Your task to perform on an android device: What's on my calendar today? Image 0: 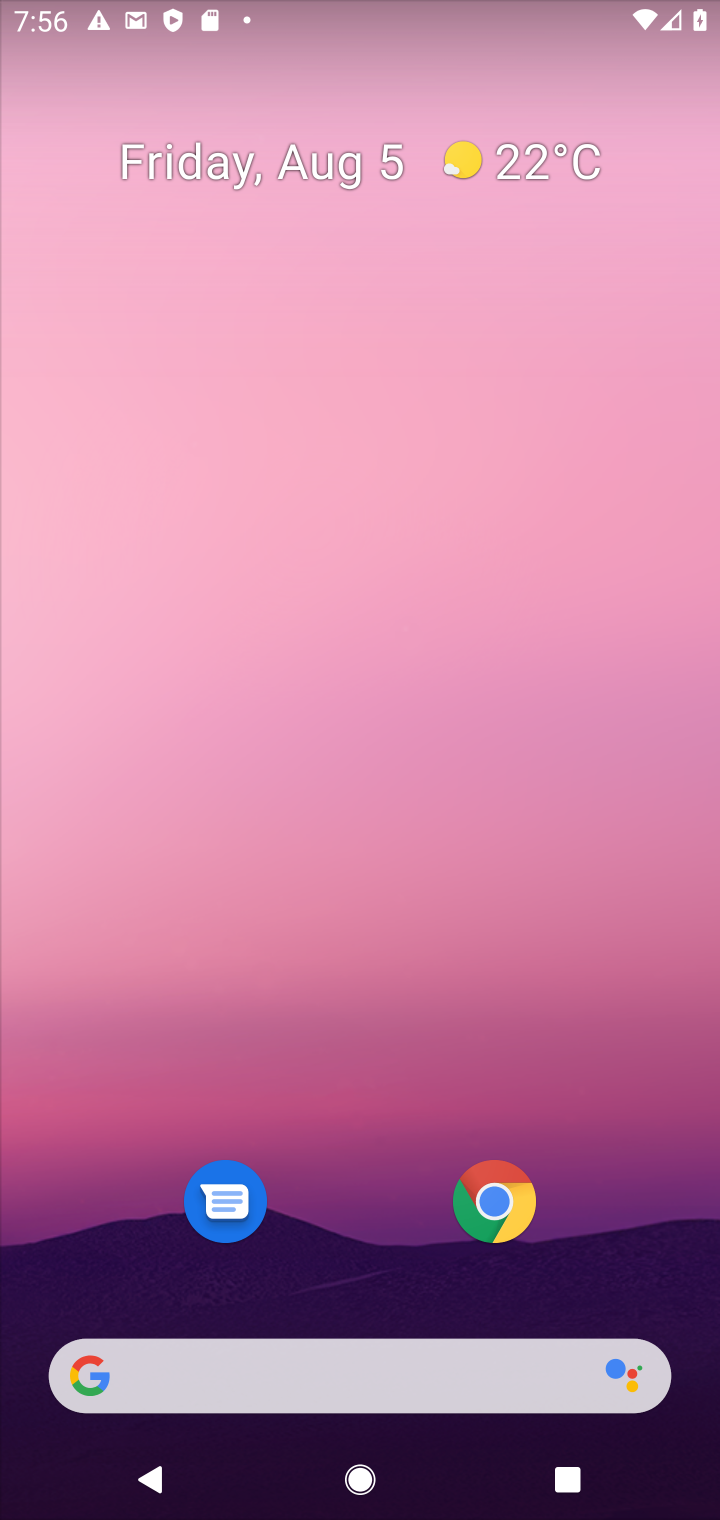
Step 0: drag from (398, 841) to (429, 224)
Your task to perform on an android device: What's on my calendar today? Image 1: 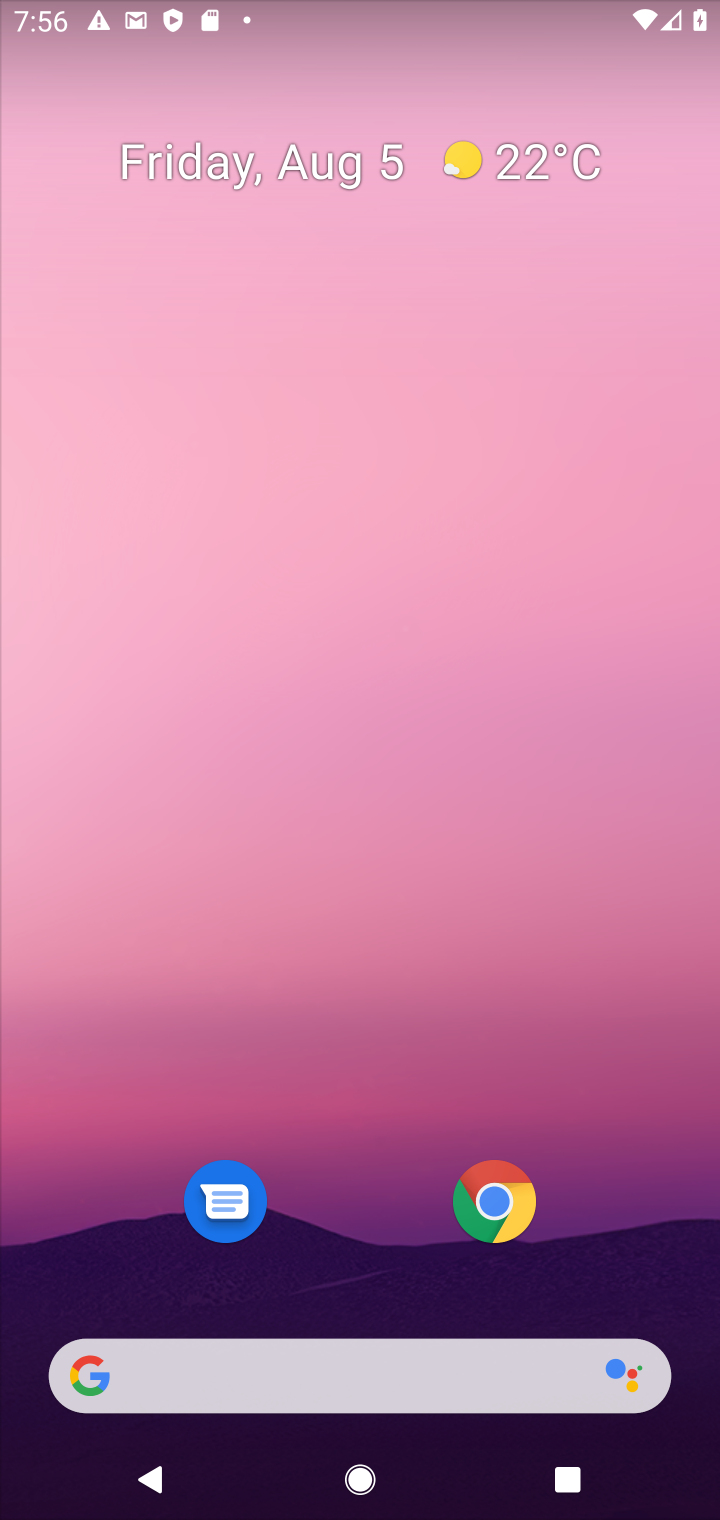
Step 1: drag from (418, 1467) to (395, 424)
Your task to perform on an android device: What's on my calendar today? Image 2: 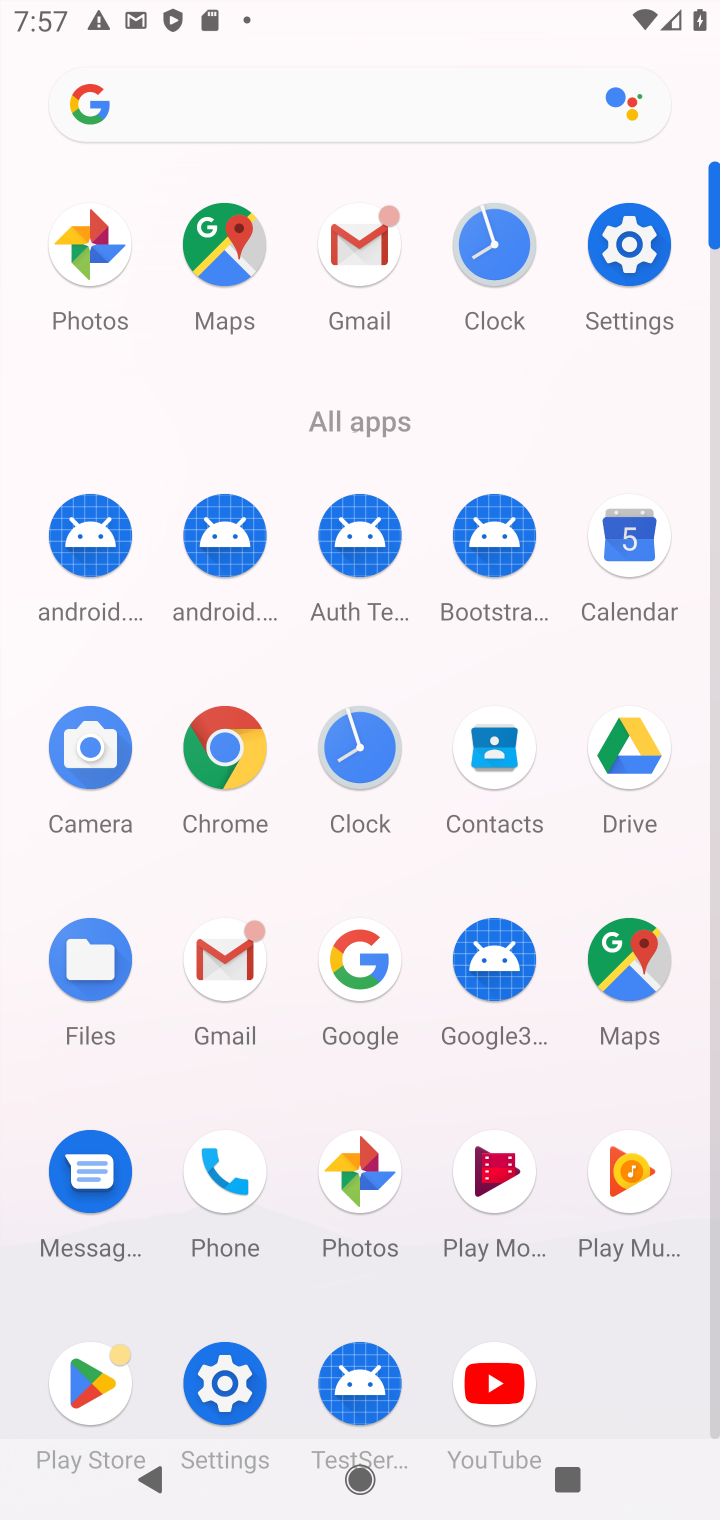
Step 2: click (645, 556)
Your task to perform on an android device: What's on my calendar today? Image 3: 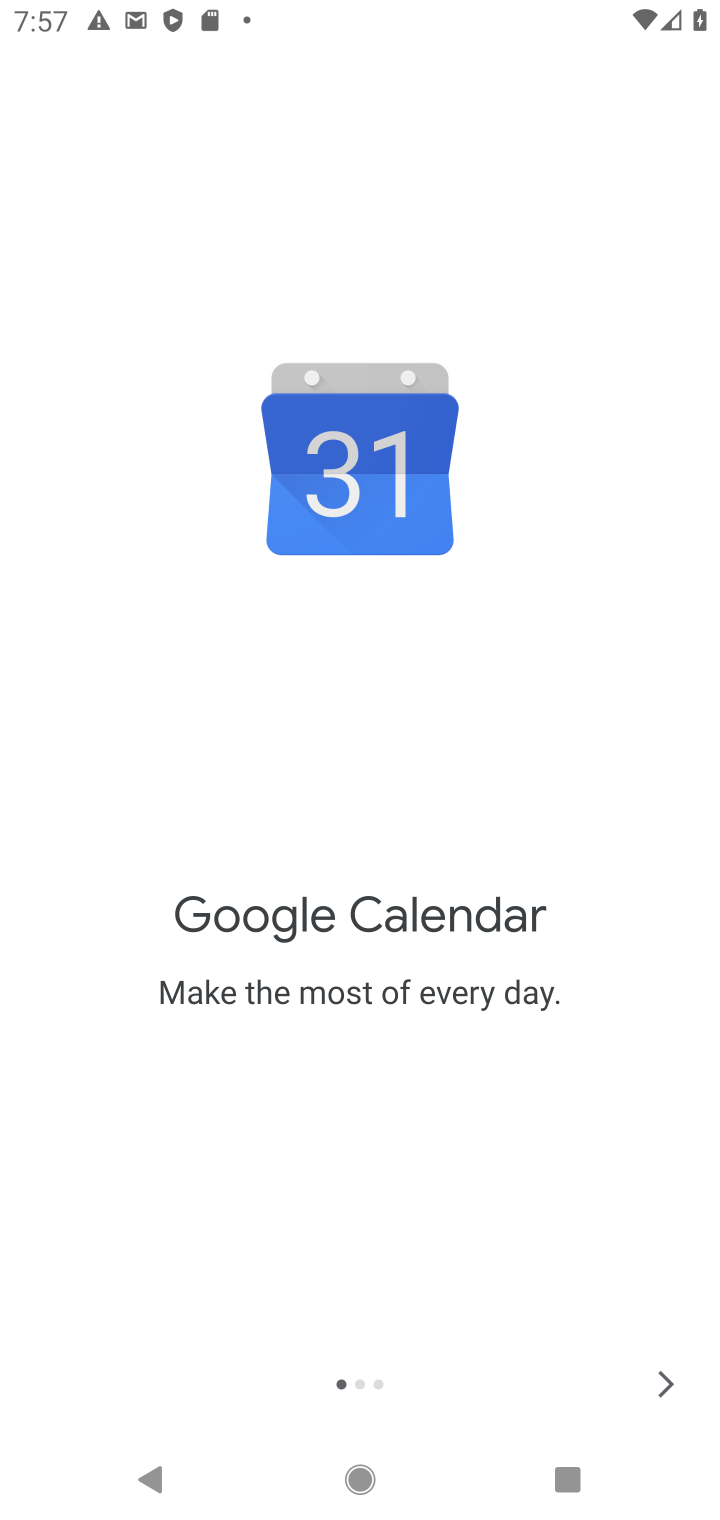
Step 3: click (663, 1387)
Your task to perform on an android device: What's on my calendar today? Image 4: 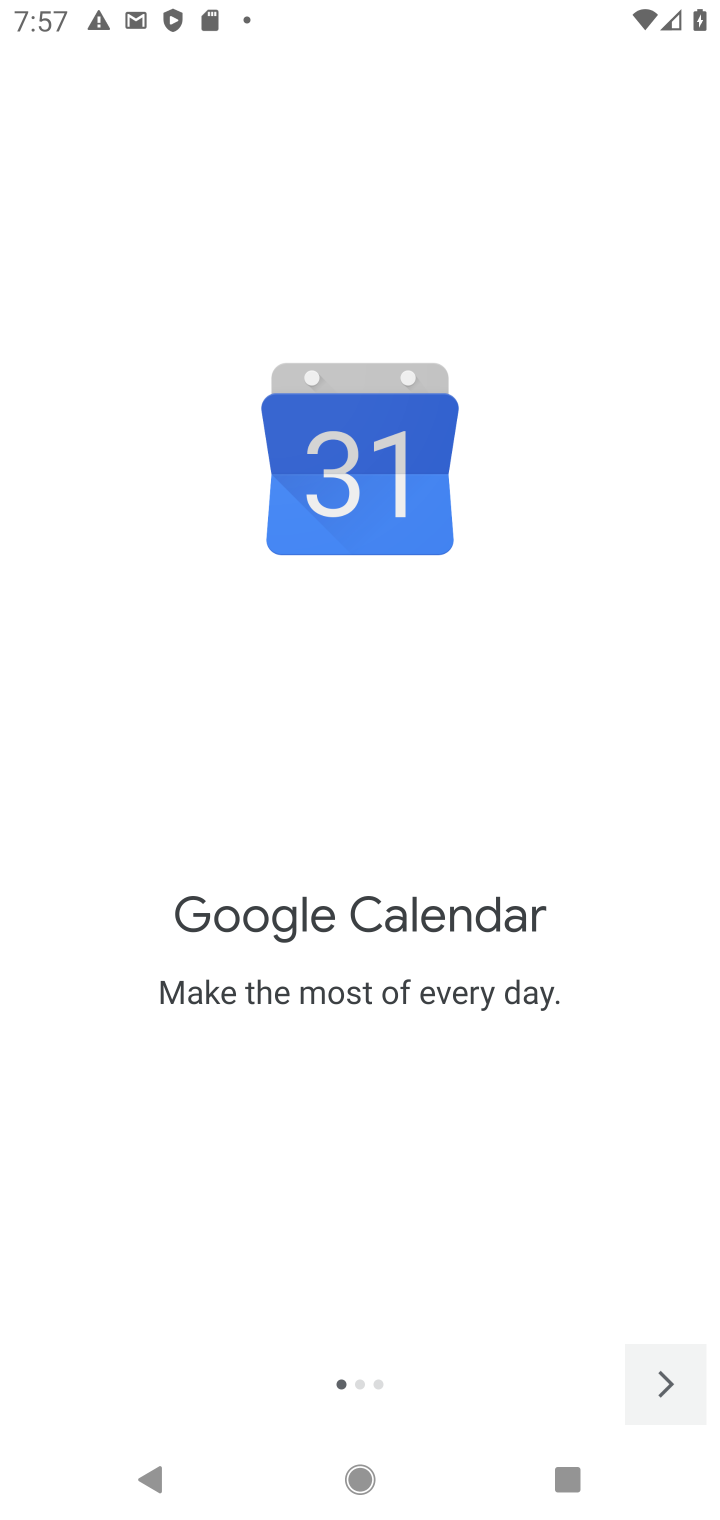
Step 4: click (663, 1387)
Your task to perform on an android device: What's on my calendar today? Image 5: 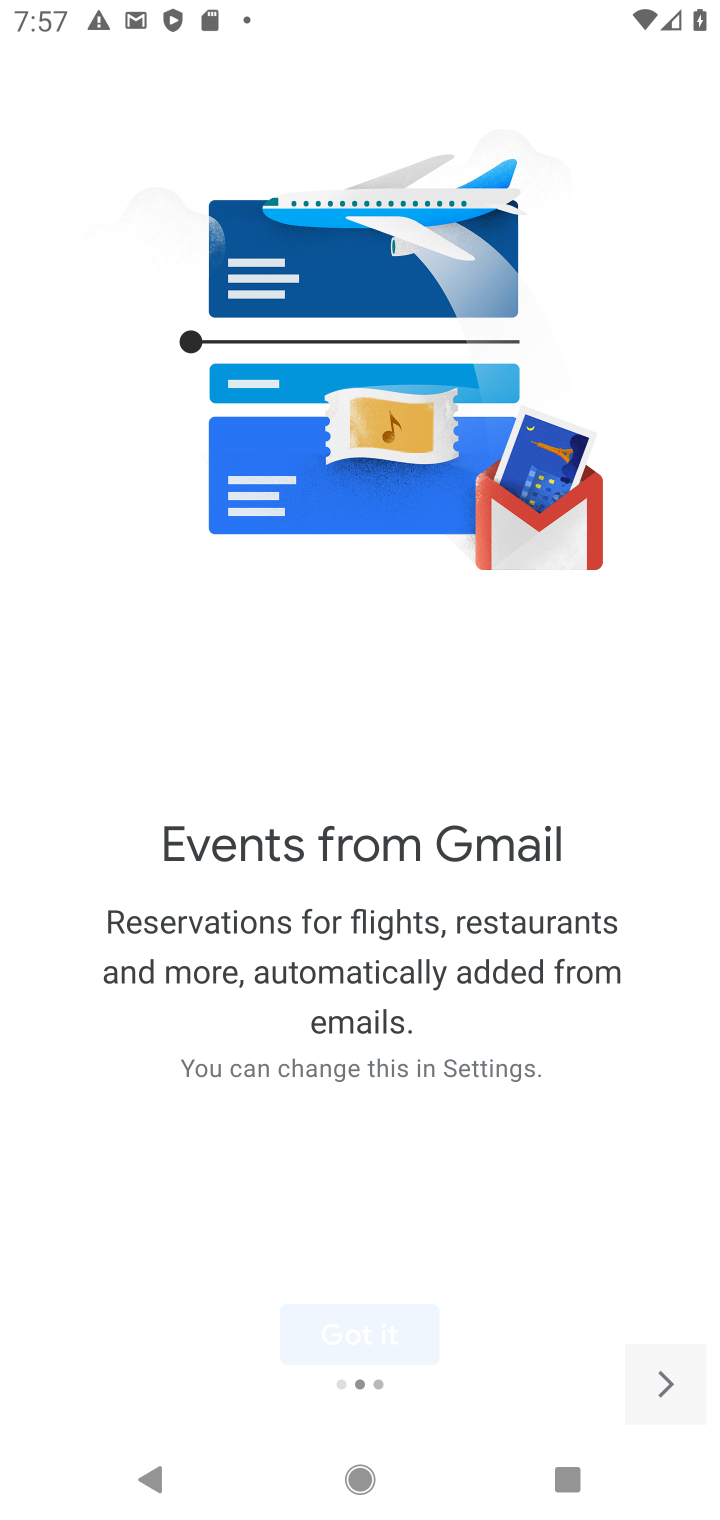
Step 5: click (663, 1387)
Your task to perform on an android device: What's on my calendar today? Image 6: 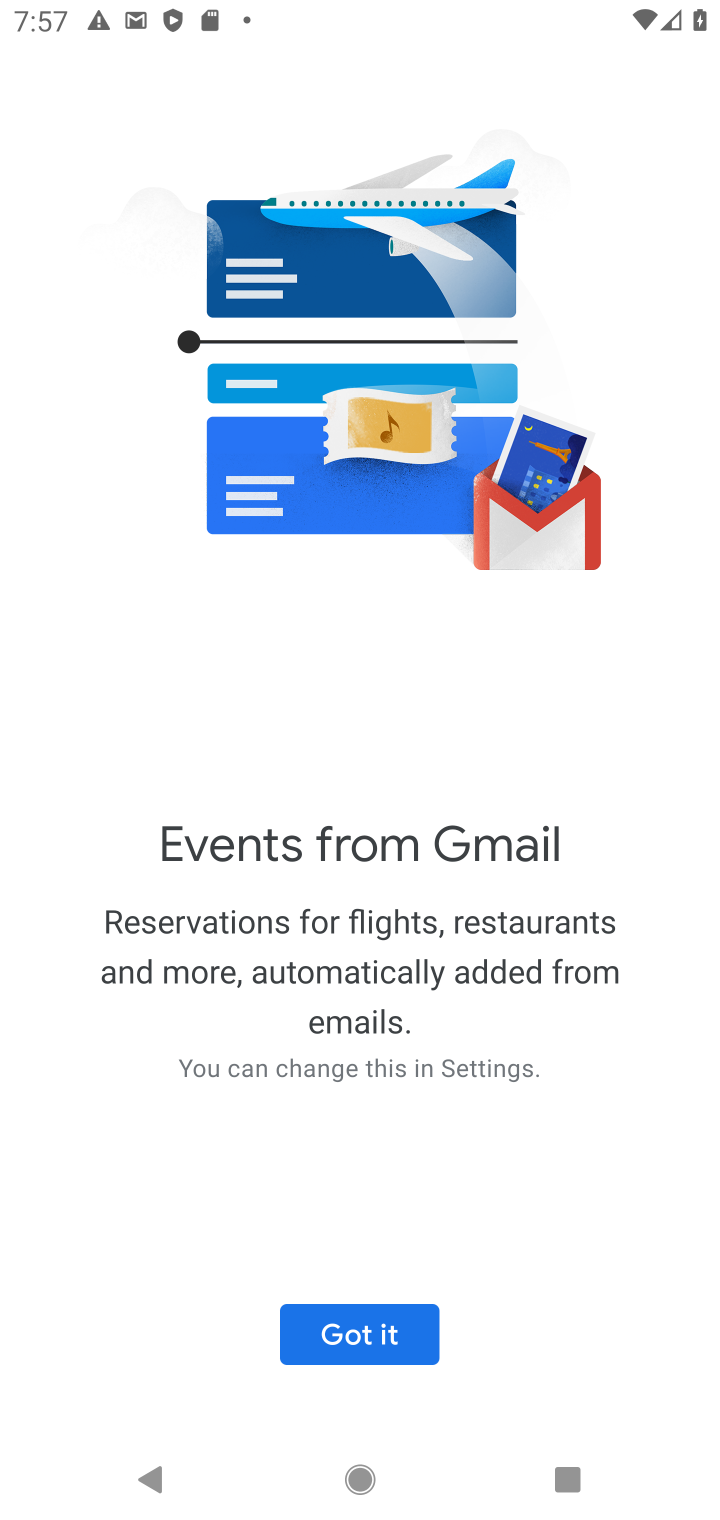
Step 6: click (281, 1328)
Your task to perform on an android device: What's on my calendar today? Image 7: 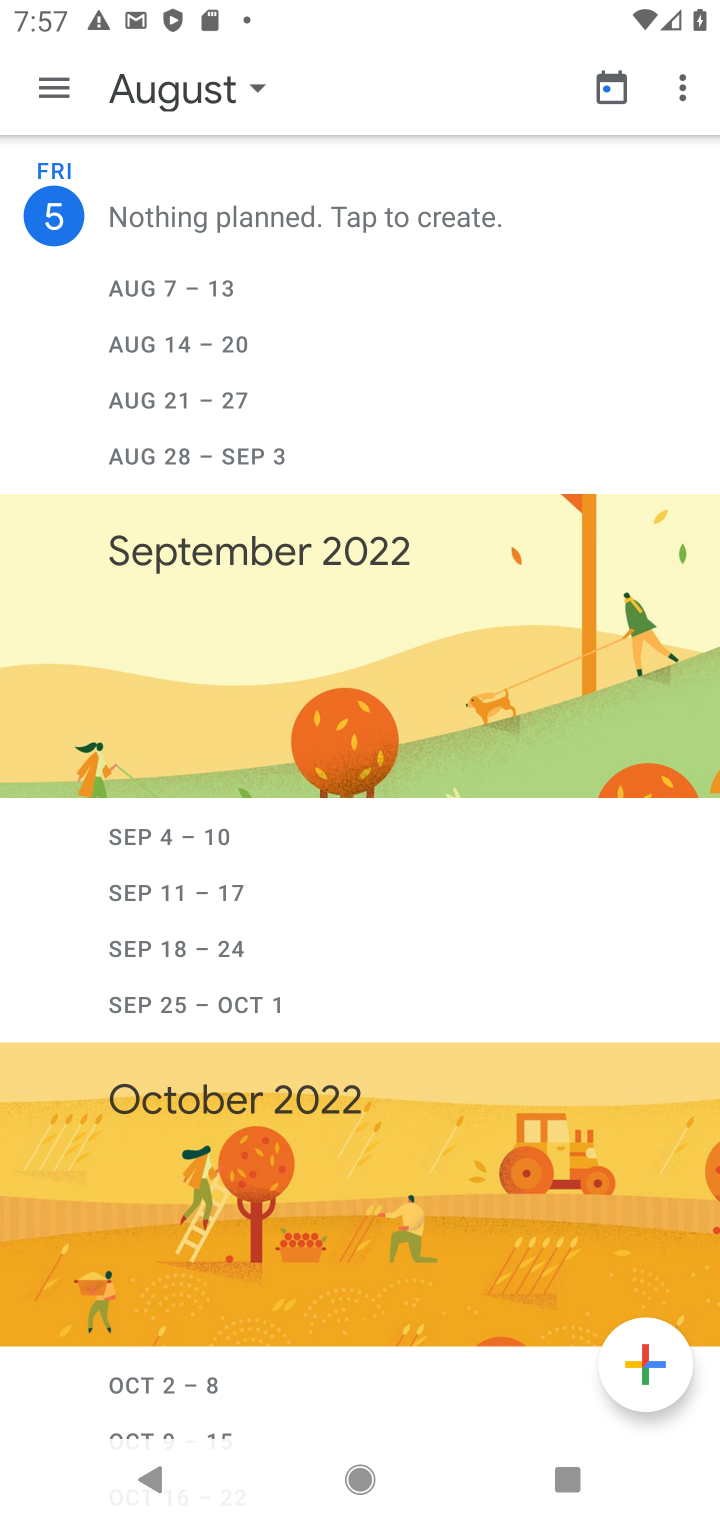
Step 7: click (251, 84)
Your task to perform on an android device: What's on my calendar today? Image 8: 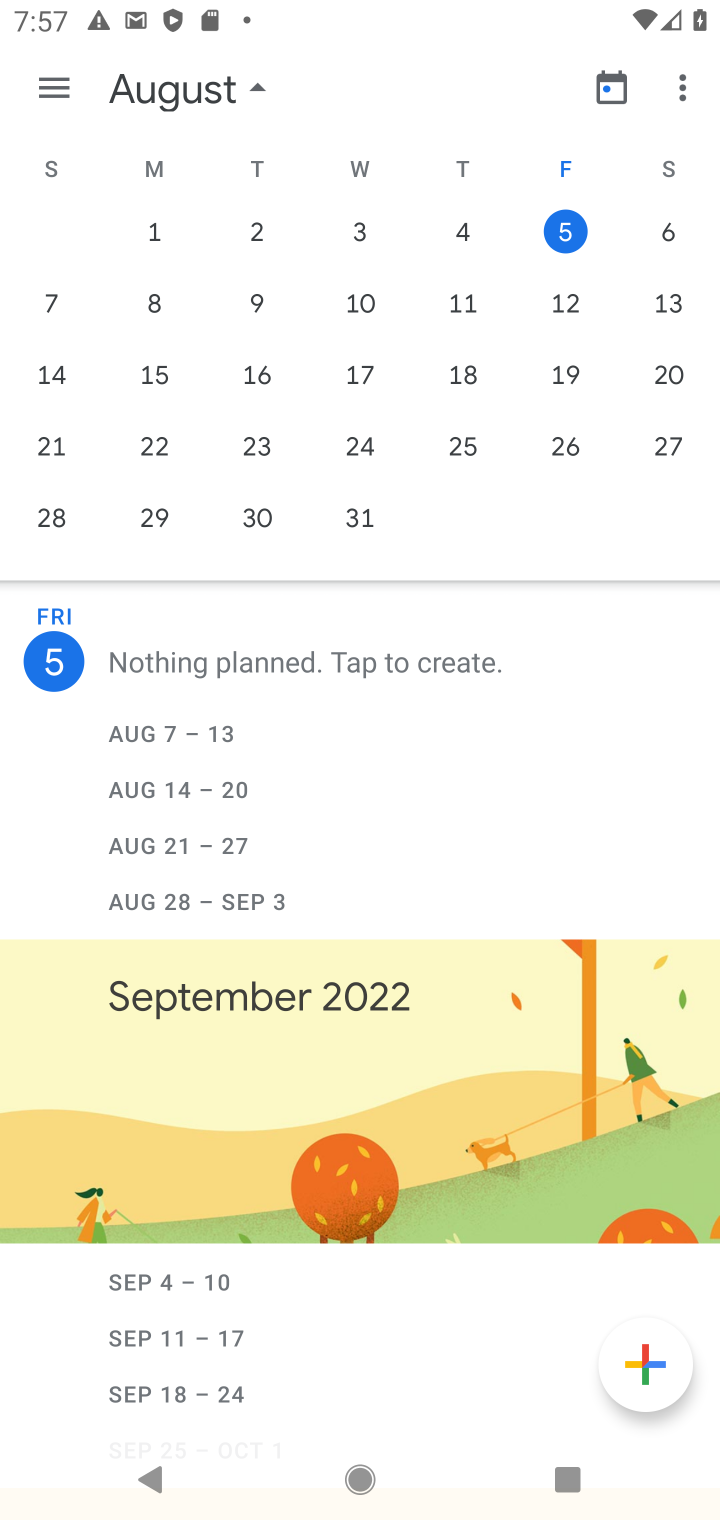
Step 8: click (671, 232)
Your task to perform on an android device: What's on my calendar today? Image 9: 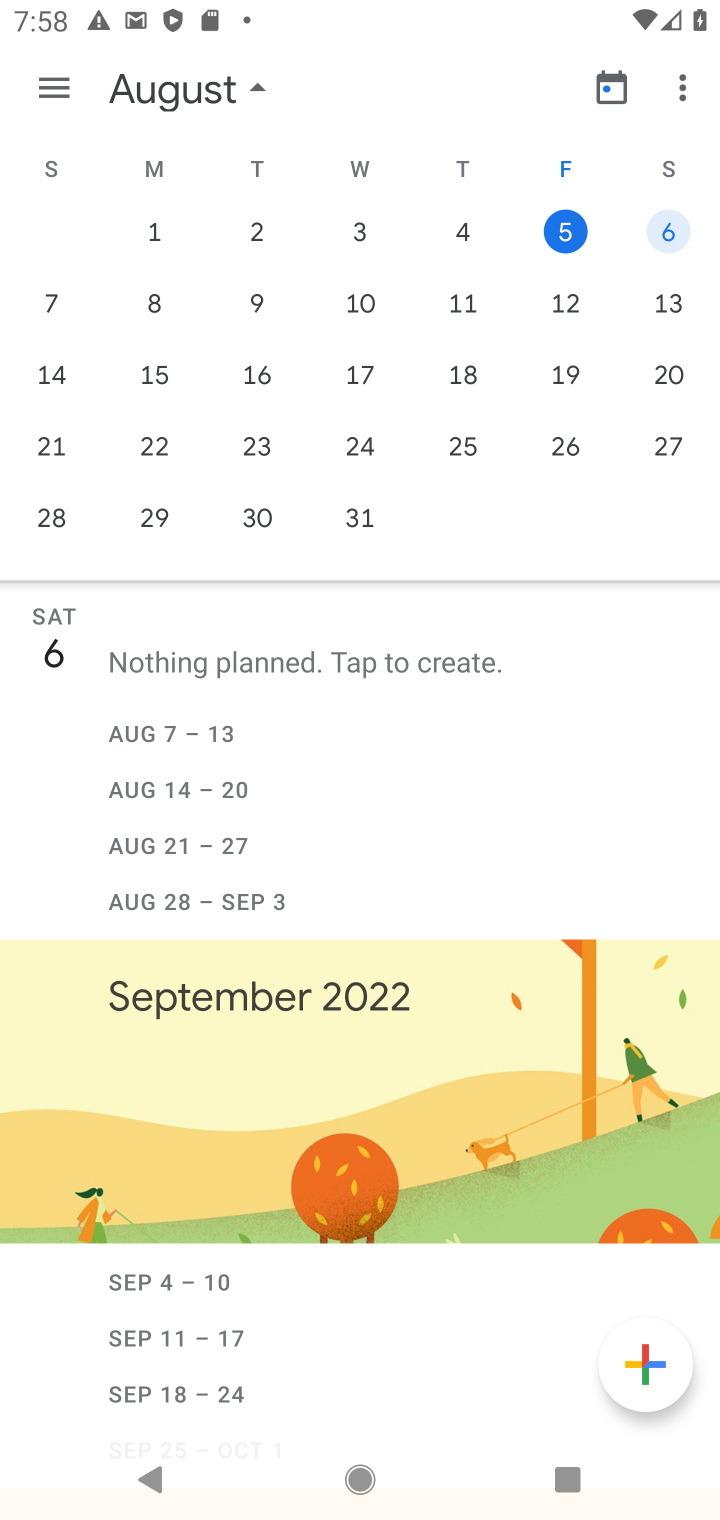
Step 9: click (671, 232)
Your task to perform on an android device: What's on my calendar today? Image 10: 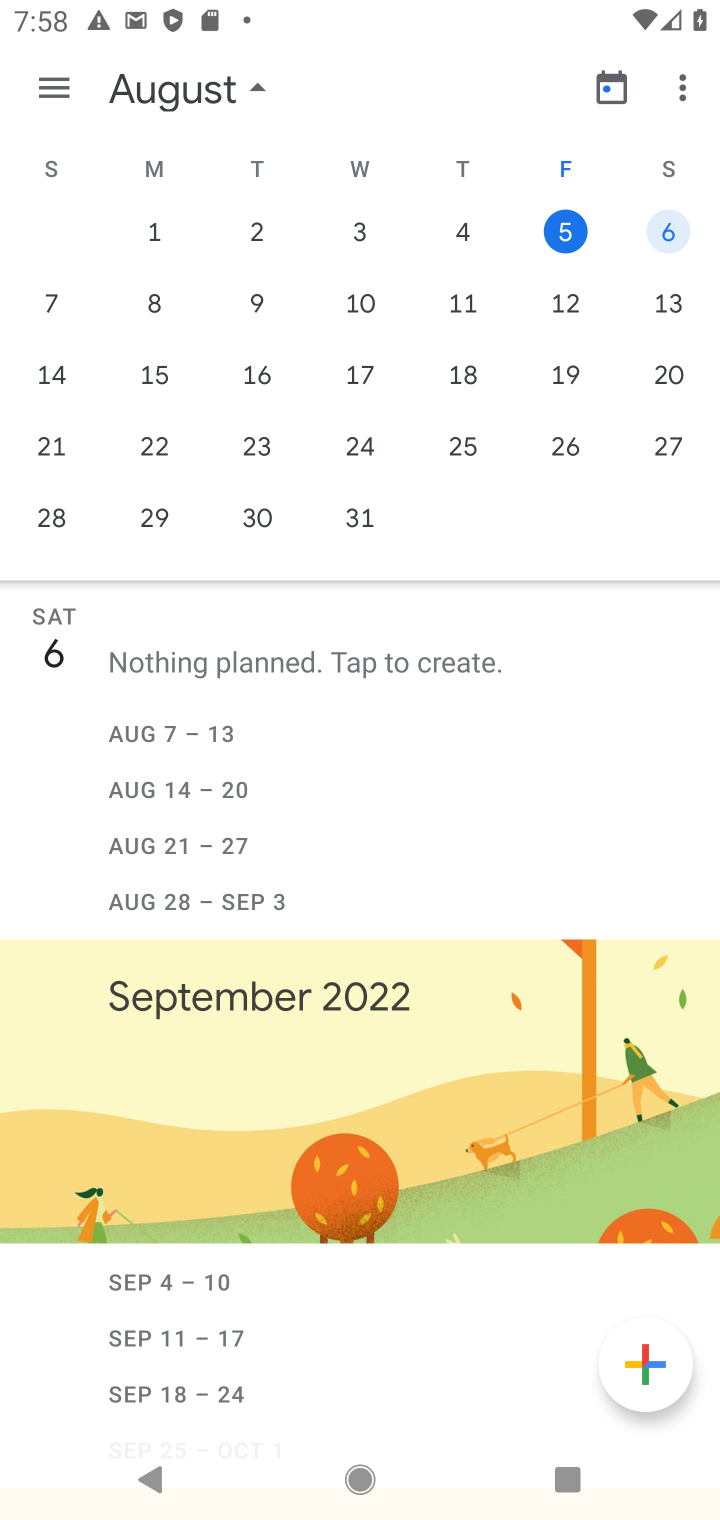
Step 10: task complete